Your task to perform on an android device: open a bookmark in the chrome app Image 0: 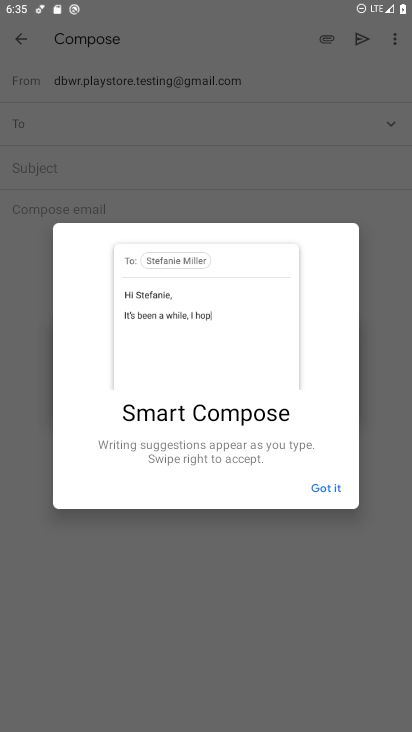
Step 0: press home button
Your task to perform on an android device: open a bookmark in the chrome app Image 1: 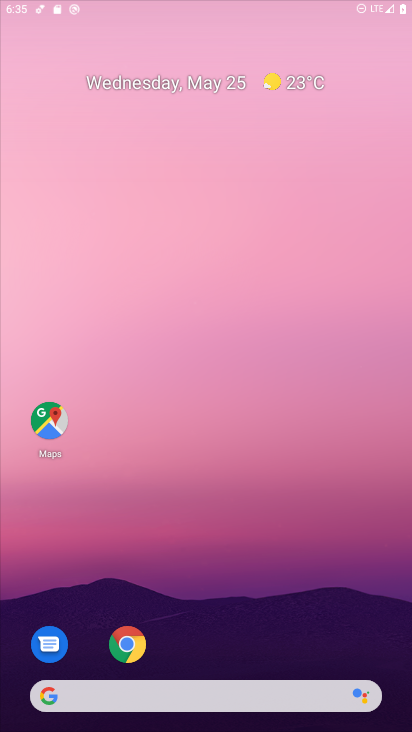
Step 1: drag from (399, 672) to (278, 33)
Your task to perform on an android device: open a bookmark in the chrome app Image 2: 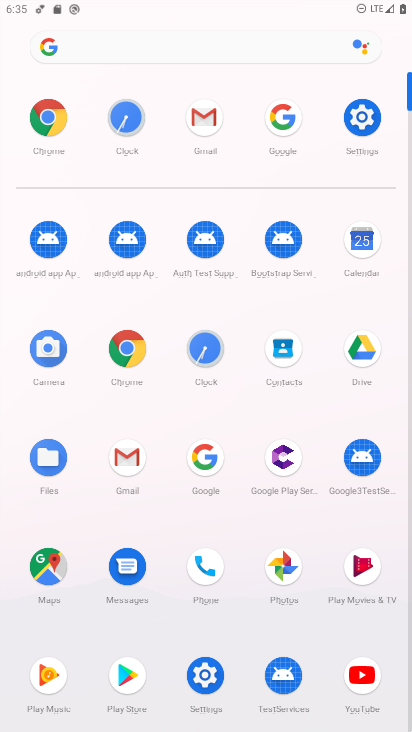
Step 2: click (108, 349)
Your task to perform on an android device: open a bookmark in the chrome app Image 3: 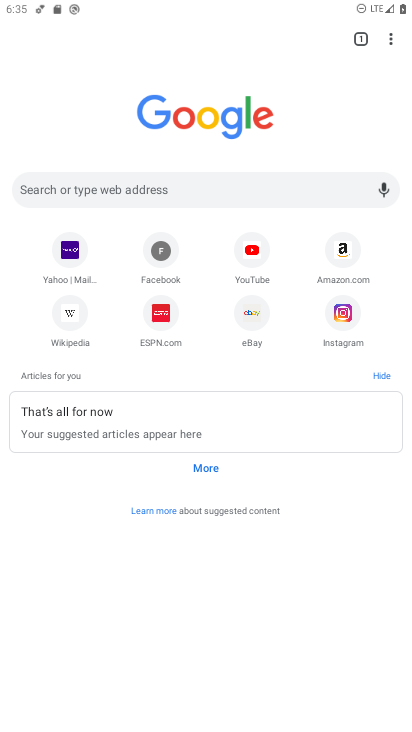
Step 3: click (395, 35)
Your task to perform on an android device: open a bookmark in the chrome app Image 4: 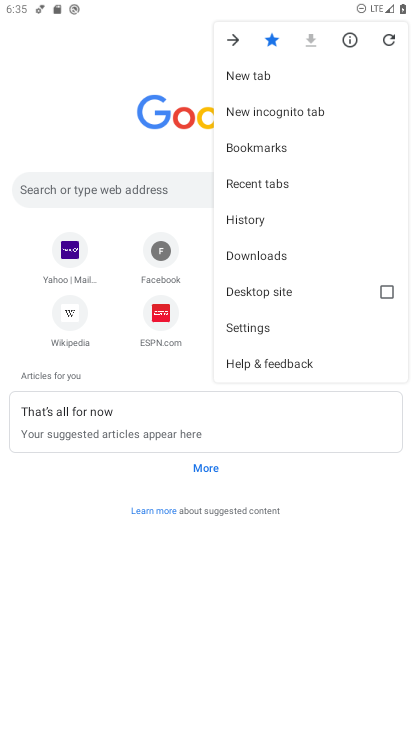
Step 4: click (276, 142)
Your task to perform on an android device: open a bookmark in the chrome app Image 5: 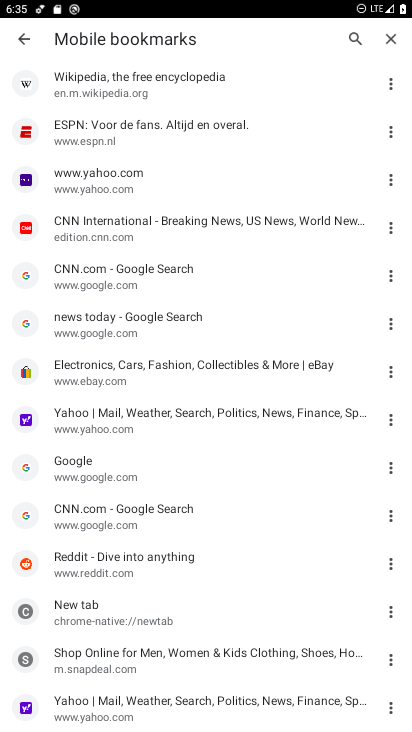
Step 5: task complete